Your task to perform on an android device: turn on showing notifications on the lock screen Image 0: 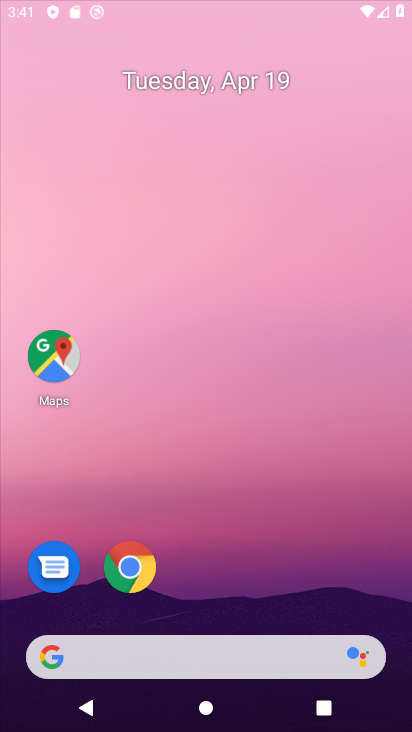
Step 0: click (141, 581)
Your task to perform on an android device: turn on showing notifications on the lock screen Image 1: 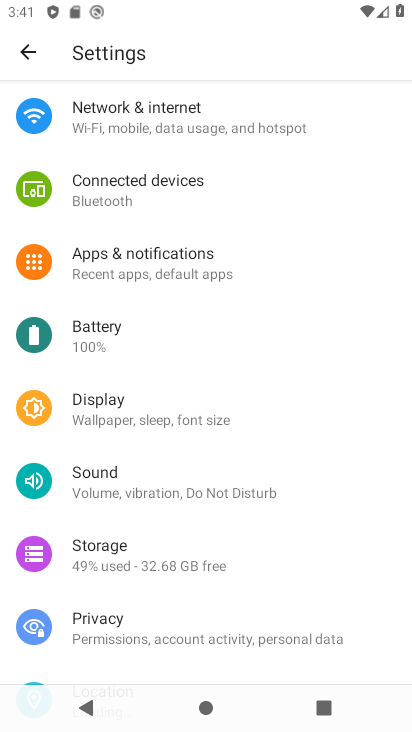
Step 1: drag from (177, 605) to (208, 565)
Your task to perform on an android device: turn on showing notifications on the lock screen Image 2: 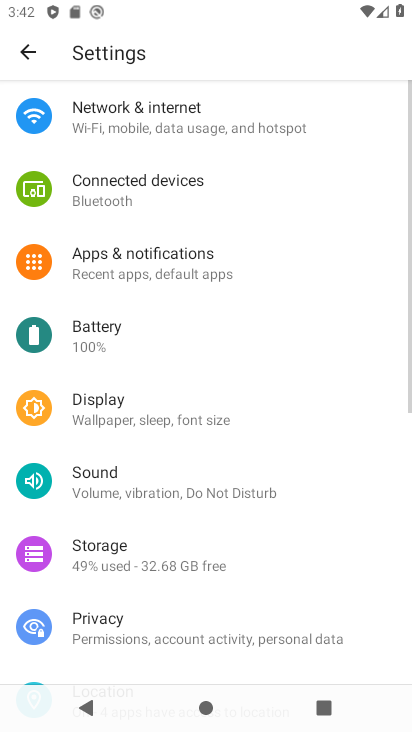
Step 2: click (183, 272)
Your task to perform on an android device: turn on showing notifications on the lock screen Image 3: 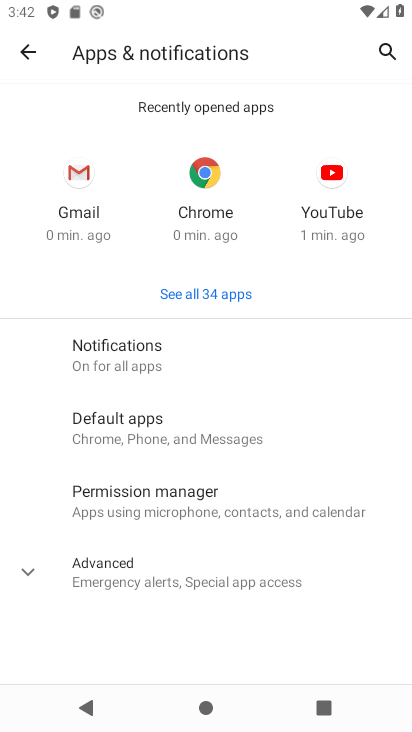
Step 3: click (131, 380)
Your task to perform on an android device: turn on showing notifications on the lock screen Image 4: 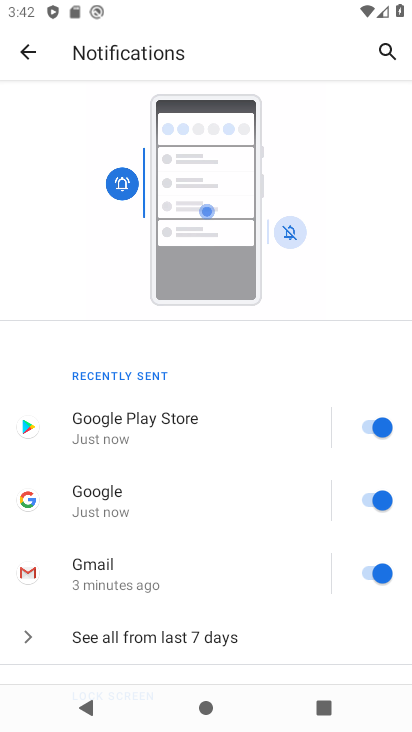
Step 4: drag from (215, 589) to (307, 197)
Your task to perform on an android device: turn on showing notifications on the lock screen Image 5: 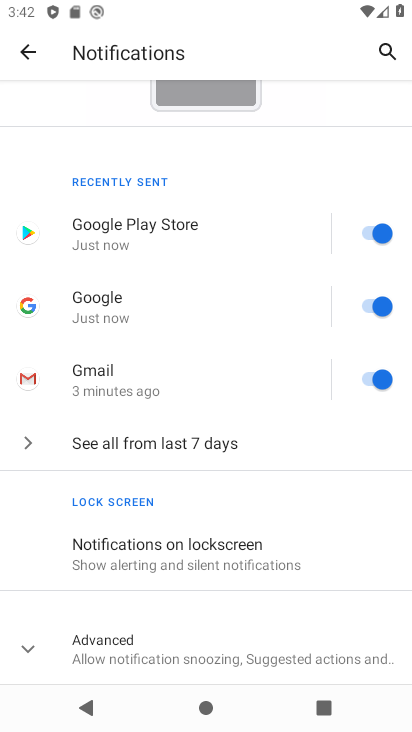
Step 5: click (258, 561)
Your task to perform on an android device: turn on showing notifications on the lock screen Image 6: 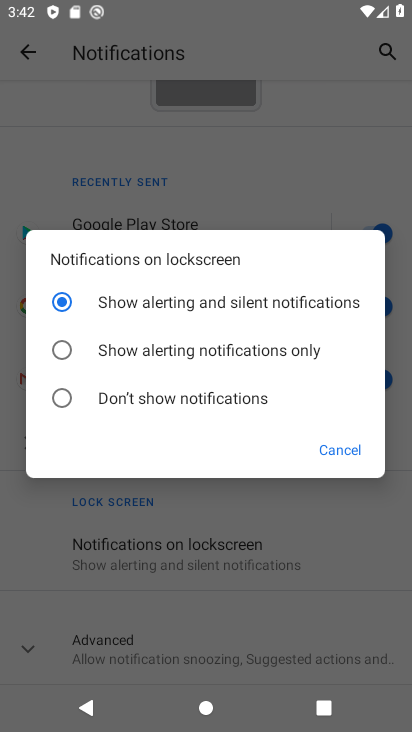
Step 6: task complete